Your task to perform on an android device: Go to Yahoo.com Image 0: 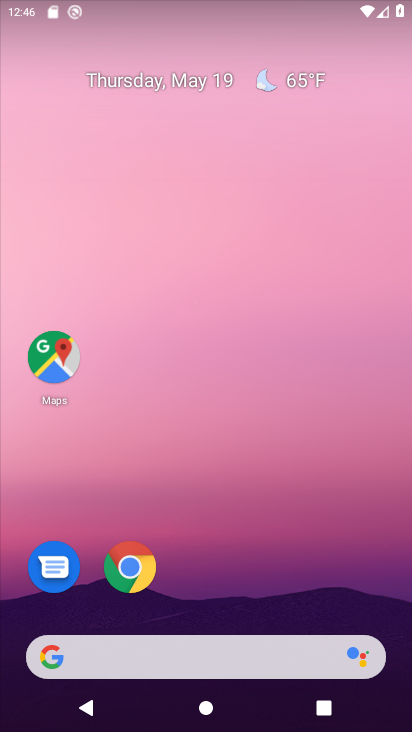
Step 0: click (135, 562)
Your task to perform on an android device: Go to Yahoo.com Image 1: 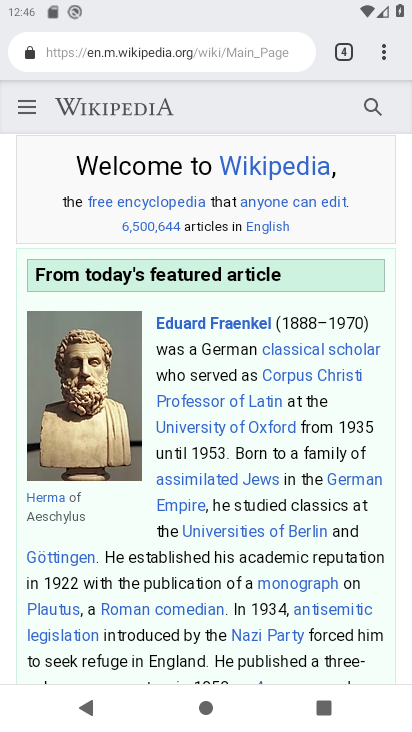
Step 1: click (347, 52)
Your task to perform on an android device: Go to Yahoo.com Image 2: 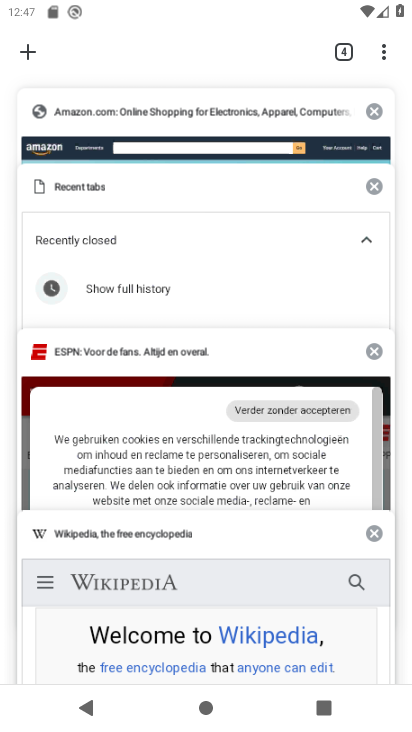
Step 2: click (33, 52)
Your task to perform on an android device: Go to Yahoo.com Image 3: 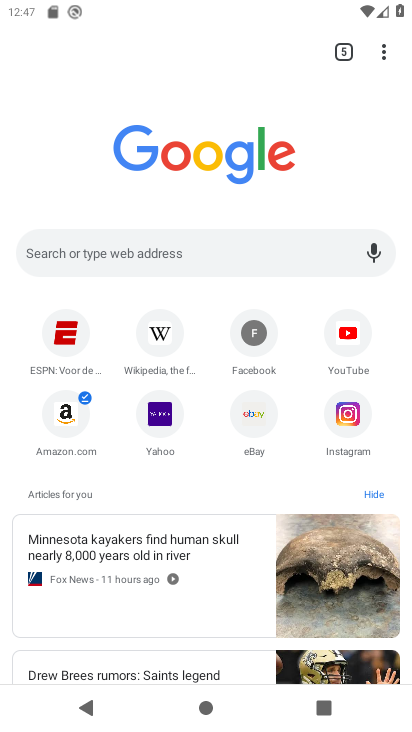
Step 3: click (161, 419)
Your task to perform on an android device: Go to Yahoo.com Image 4: 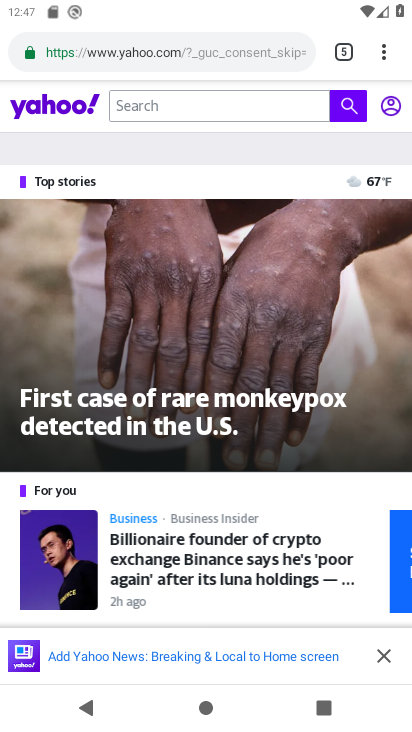
Step 4: task complete